Your task to perform on an android device: open wifi settings Image 0: 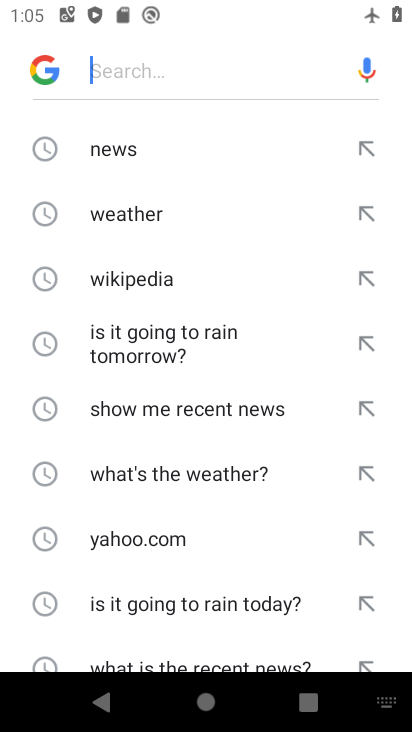
Step 0: press home button
Your task to perform on an android device: open wifi settings Image 1: 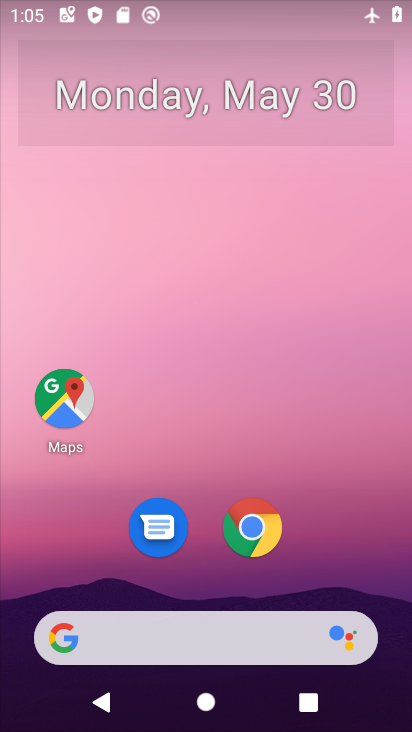
Step 1: drag from (214, 581) to (162, 6)
Your task to perform on an android device: open wifi settings Image 2: 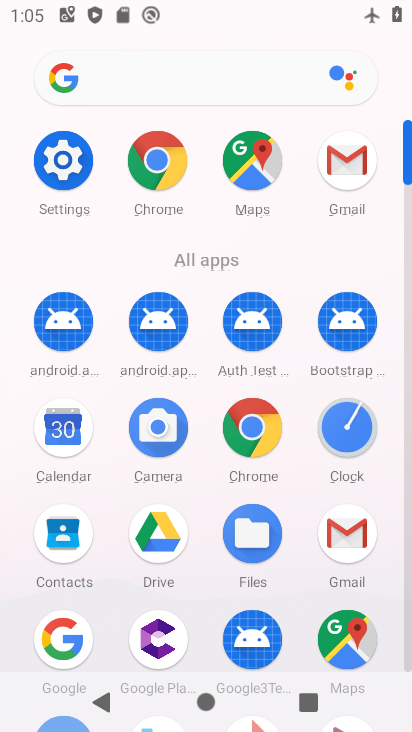
Step 2: click (70, 158)
Your task to perform on an android device: open wifi settings Image 3: 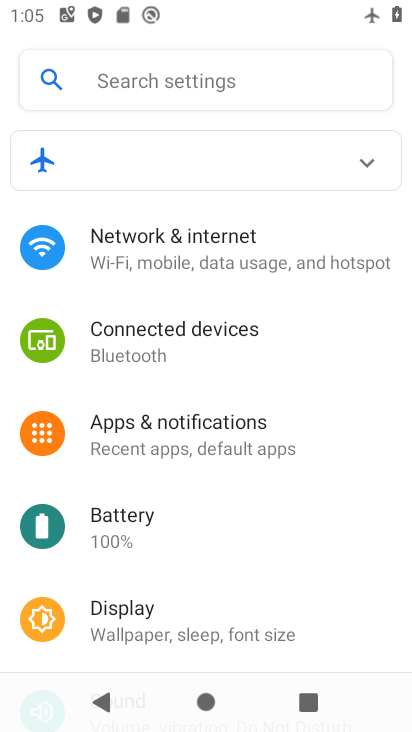
Step 3: click (251, 259)
Your task to perform on an android device: open wifi settings Image 4: 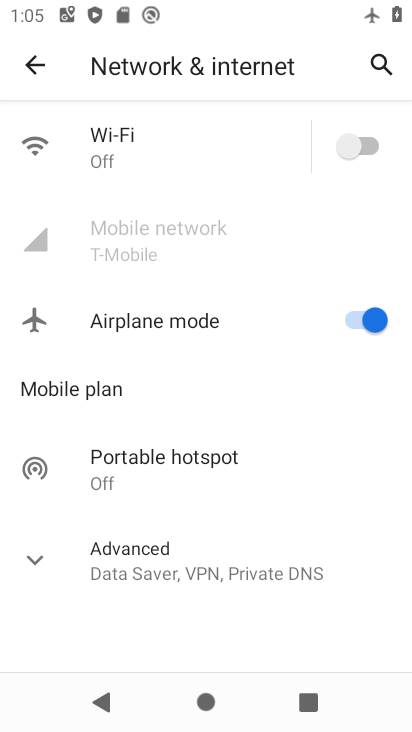
Step 4: click (210, 153)
Your task to perform on an android device: open wifi settings Image 5: 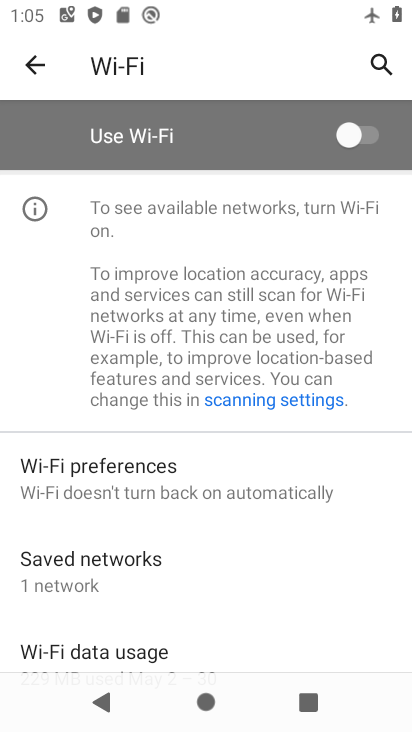
Step 5: task complete